Your task to perform on an android device: clear history in the chrome app Image 0: 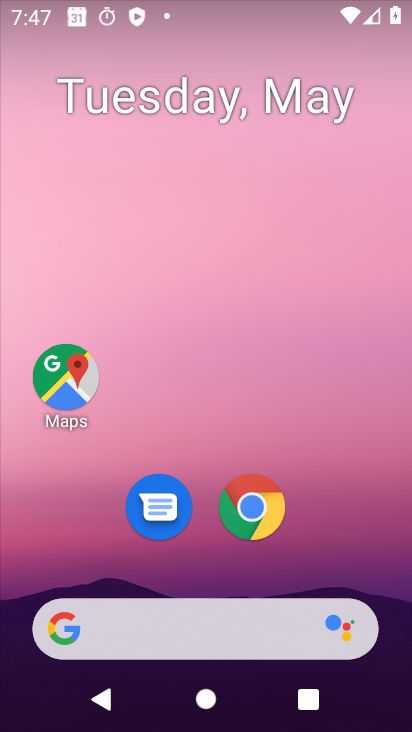
Step 0: click (246, 507)
Your task to perform on an android device: clear history in the chrome app Image 1: 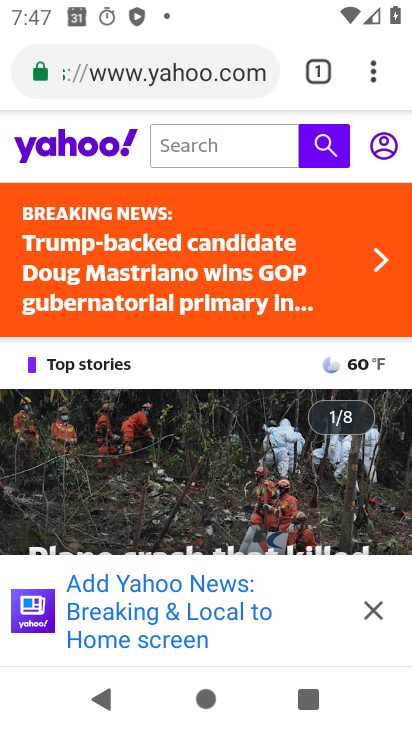
Step 1: click (370, 61)
Your task to perform on an android device: clear history in the chrome app Image 2: 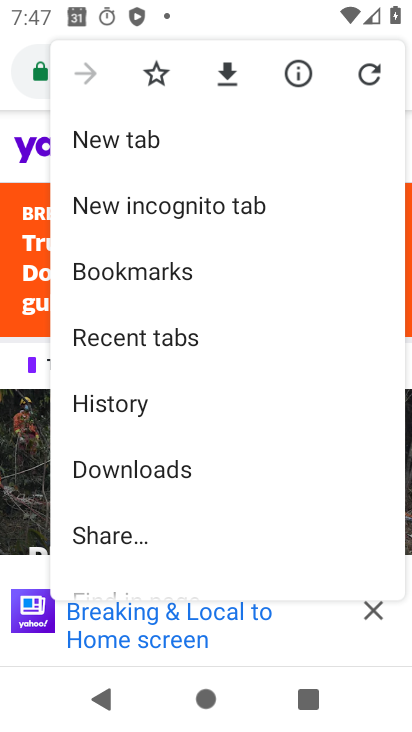
Step 2: click (174, 390)
Your task to perform on an android device: clear history in the chrome app Image 3: 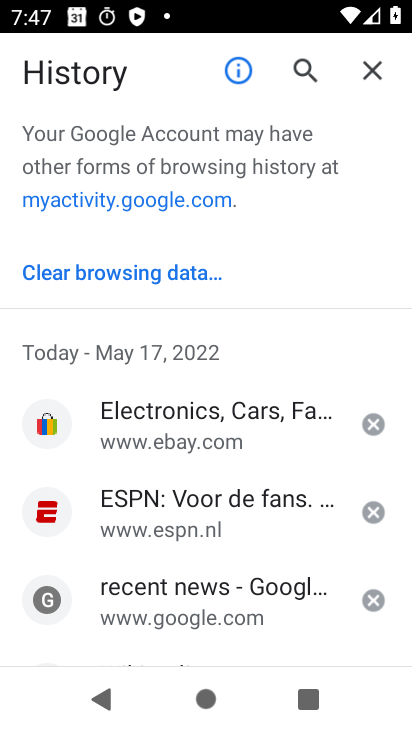
Step 3: click (95, 265)
Your task to perform on an android device: clear history in the chrome app Image 4: 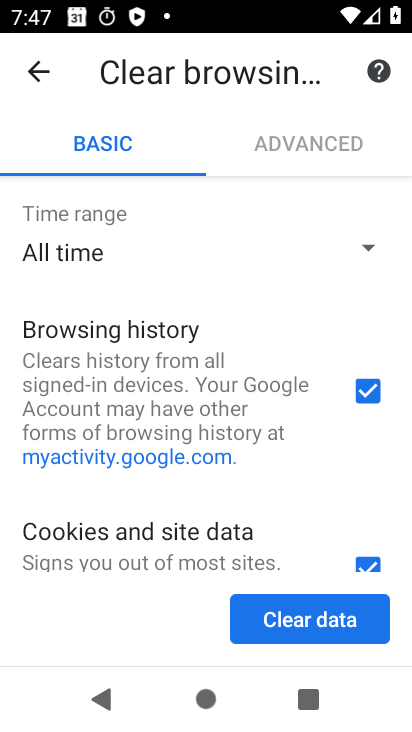
Step 4: click (312, 614)
Your task to perform on an android device: clear history in the chrome app Image 5: 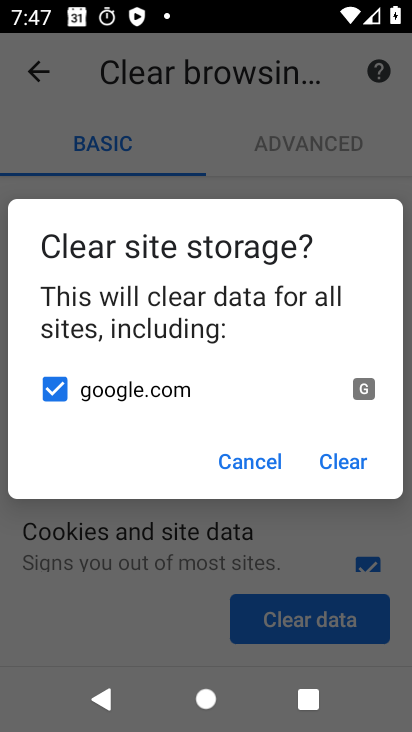
Step 5: click (325, 459)
Your task to perform on an android device: clear history in the chrome app Image 6: 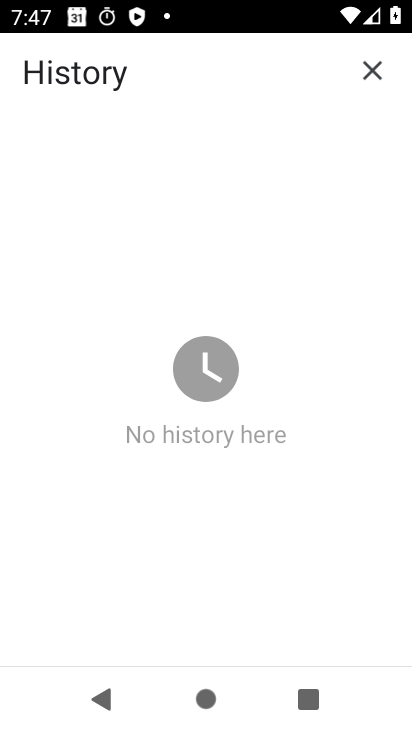
Step 6: task complete